Your task to perform on an android device: Go to Maps Image 0: 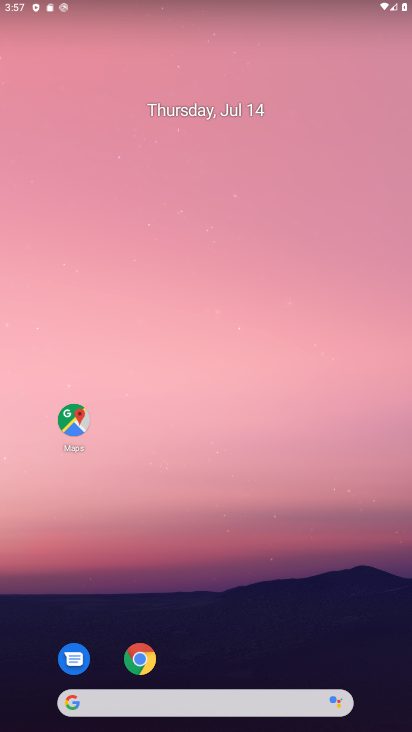
Step 0: drag from (229, 525) to (175, 134)
Your task to perform on an android device: Go to Maps Image 1: 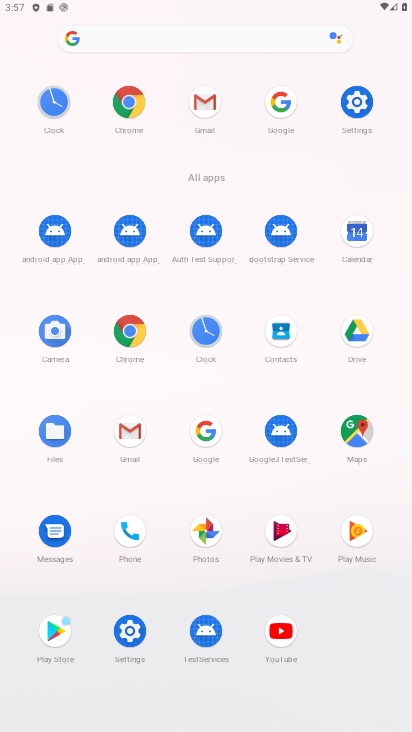
Step 1: click (364, 422)
Your task to perform on an android device: Go to Maps Image 2: 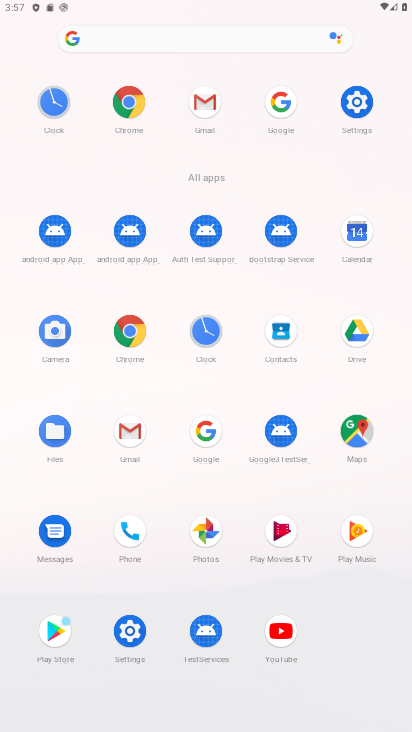
Step 2: click (363, 423)
Your task to perform on an android device: Go to Maps Image 3: 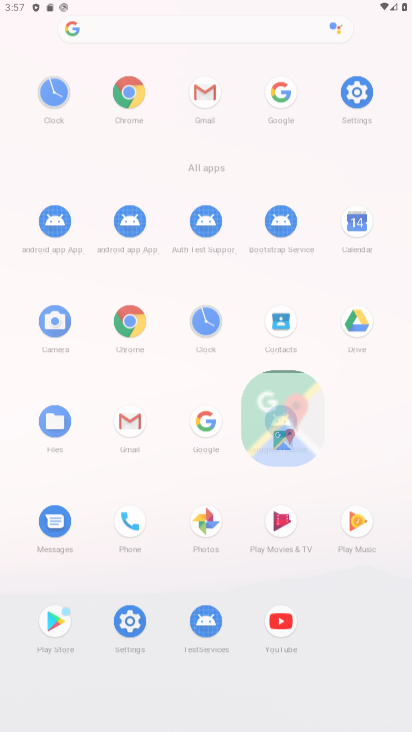
Step 3: click (363, 423)
Your task to perform on an android device: Go to Maps Image 4: 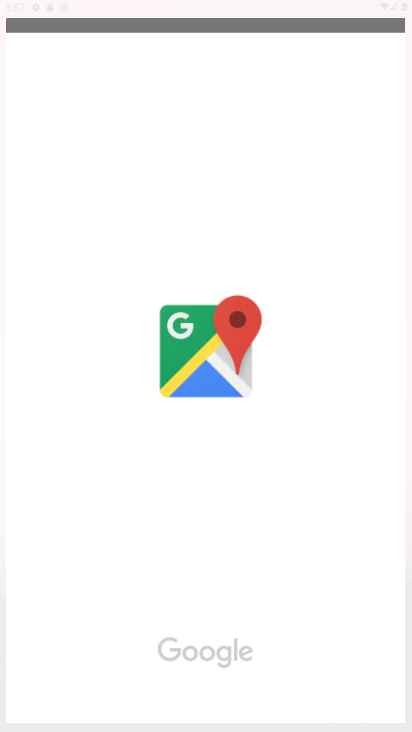
Step 4: click (363, 423)
Your task to perform on an android device: Go to Maps Image 5: 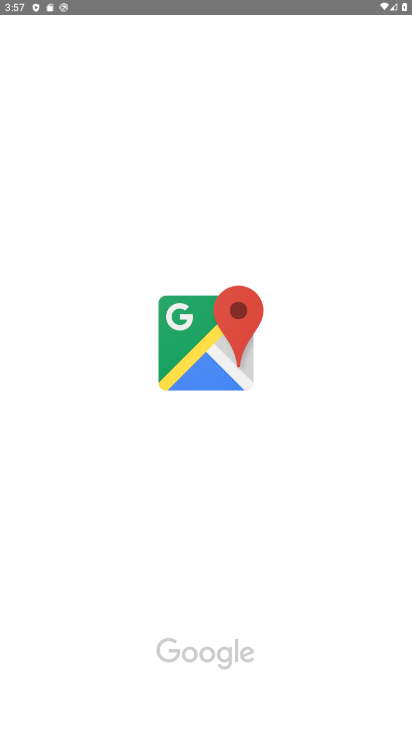
Step 5: click (363, 423)
Your task to perform on an android device: Go to Maps Image 6: 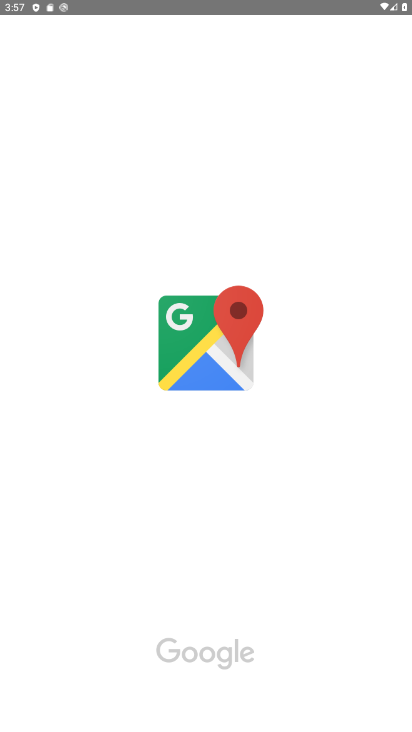
Step 6: click (363, 423)
Your task to perform on an android device: Go to Maps Image 7: 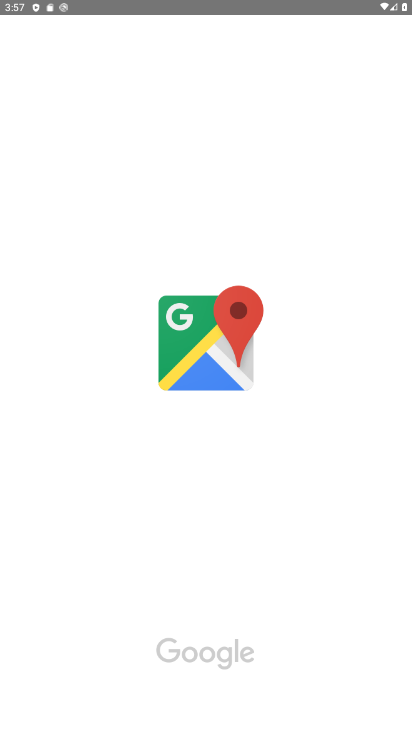
Step 7: click (198, 349)
Your task to perform on an android device: Go to Maps Image 8: 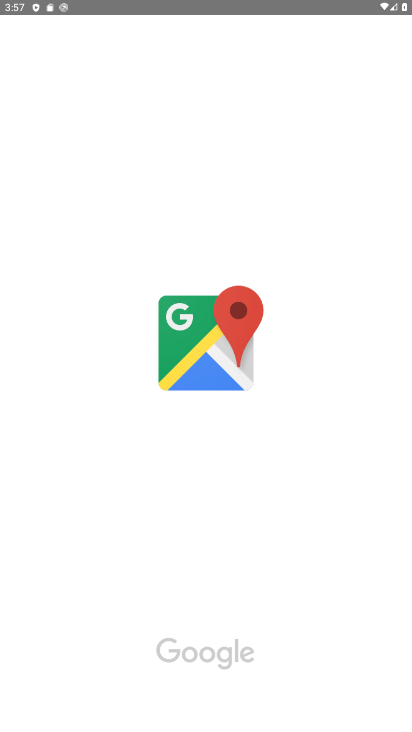
Step 8: click (195, 351)
Your task to perform on an android device: Go to Maps Image 9: 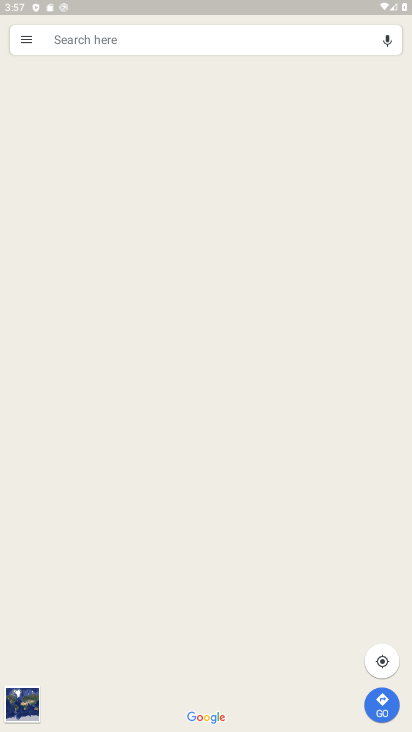
Step 9: click (195, 351)
Your task to perform on an android device: Go to Maps Image 10: 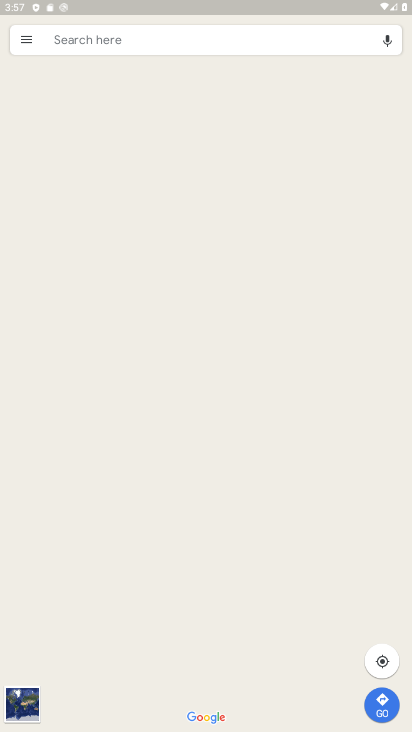
Step 10: click (198, 347)
Your task to perform on an android device: Go to Maps Image 11: 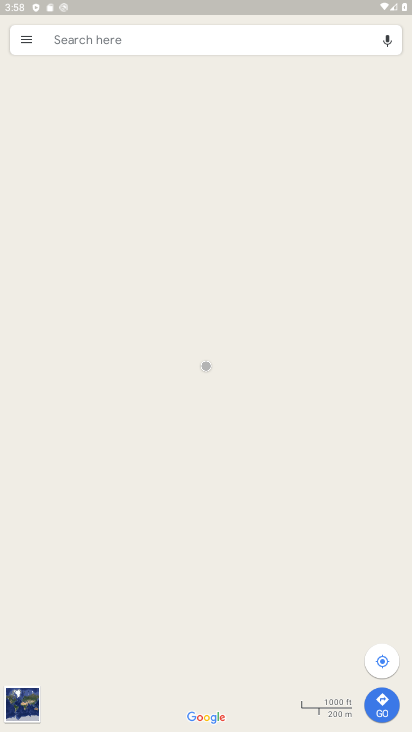
Step 11: task complete